Your task to perform on an android device: Search for vegetarian restaurants on Maps Image 0: 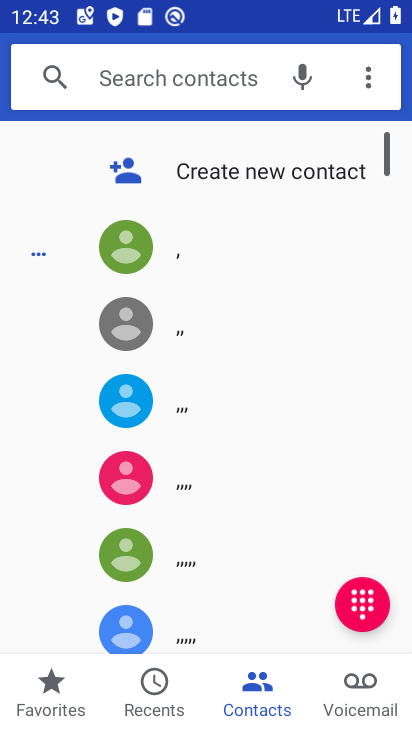
Step 0: press home button
Your task to perform on an android device: Search for vegetarian restaurants on Maps Image 1: 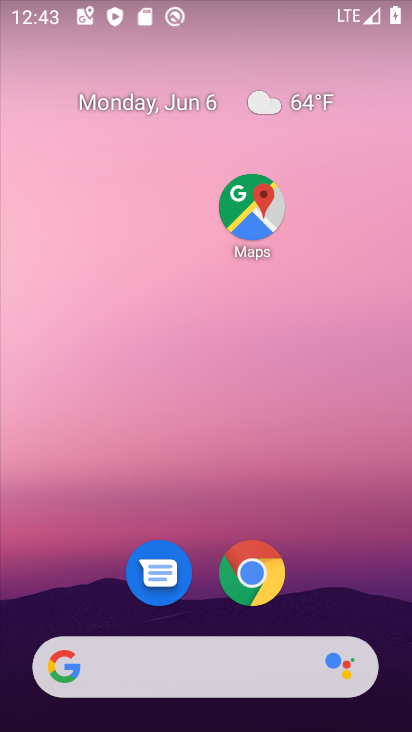
Step 1: drag from (185, 390) to (239, 11)
Your task to perform on an android device: Search for vegetarian restaurants on Maps Image 2: 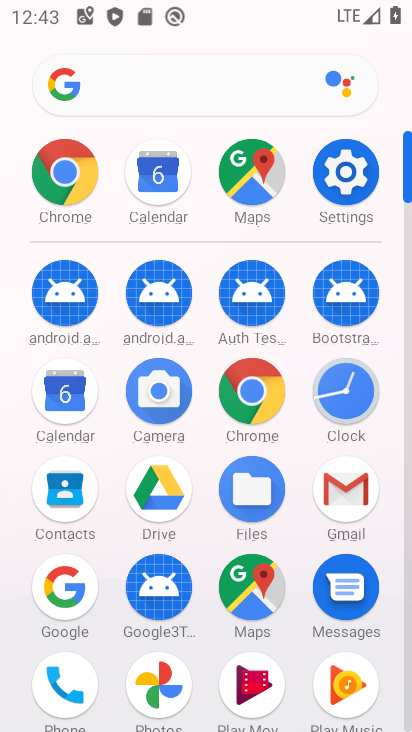
Step 2: drag from (201, 240) to (230, 29)
Your task to perform on an android device: Search for vegetarian restaurants on Maps Image 3: 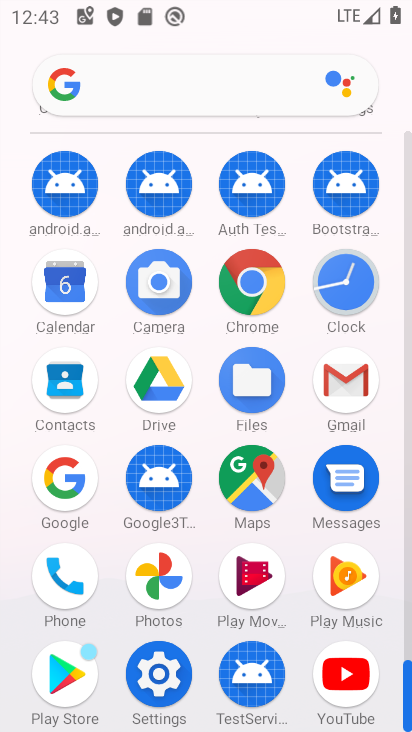
Step 3: click (258, 492)
Your task to perform on an android device: Search for vegetarian restaurants on Maps Image 4: 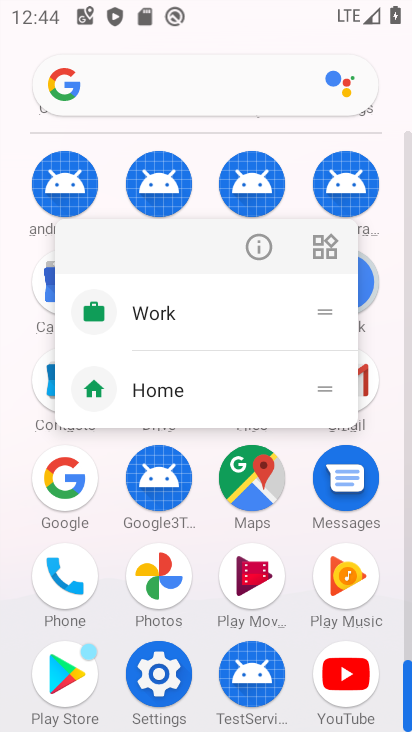
Step 4: click (256, 494)
Your task to perform on an android device: Search for vegetarian restaurants on Maps Image 5: 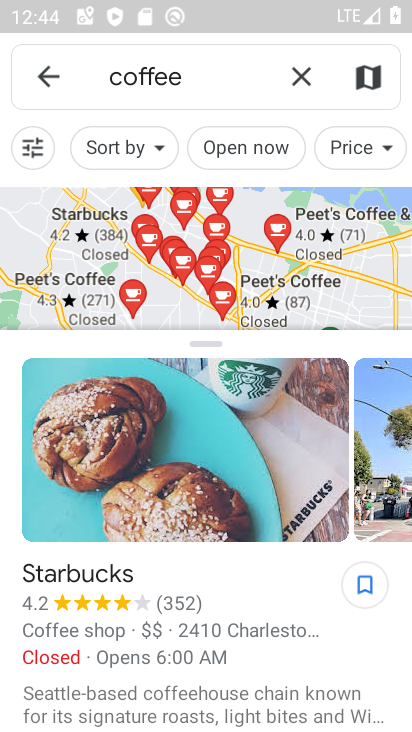
Step 5: click (300, 82)
Your task to perform on an android device: Search for vegetarian restaurants on Maps Image 6: 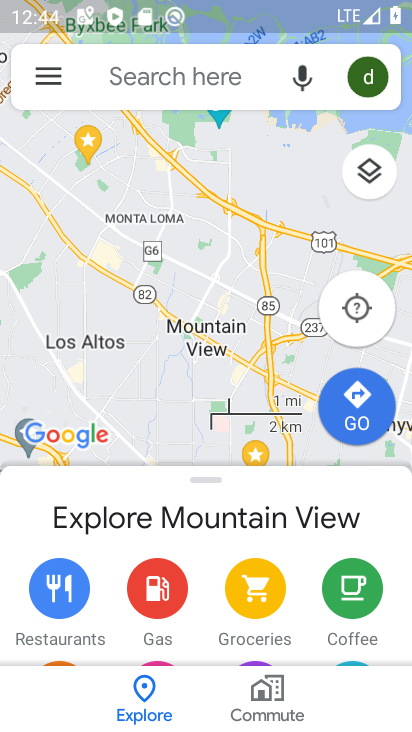
Step 6: click (185, 76)
Your task to perform on an android device: Search for vegetarian restaurants on Maps Image 7: 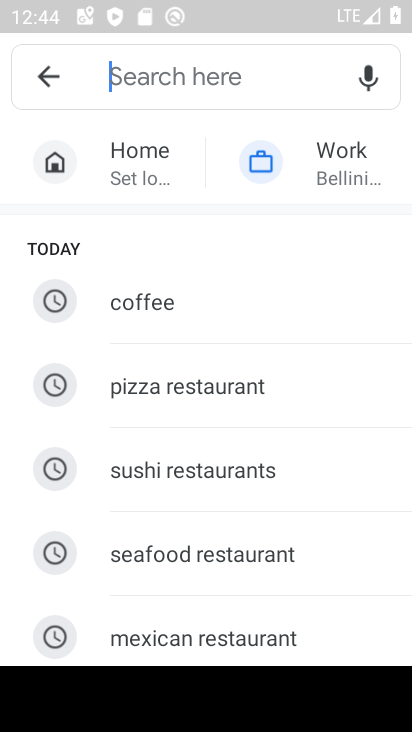
Step 7: drag from (207, 597) to (204, 129)
Your task to perform on an android device: Search for vegetarian restaurants on Maps Image 8: 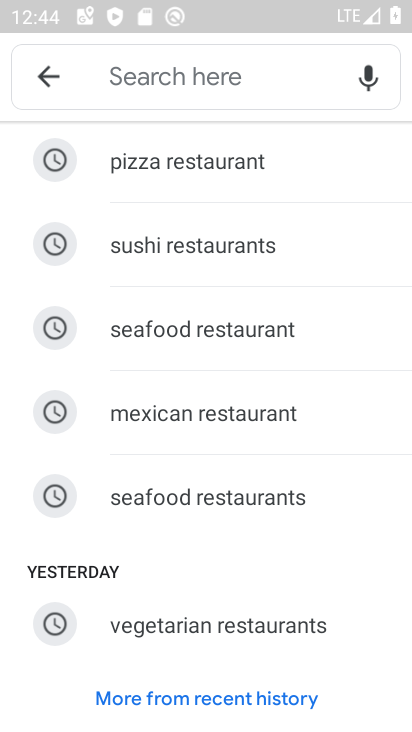
Step 8: click (205, 629)
Your task to perform on an android device: Search for vegetarian restaurants on Maps Image 9: 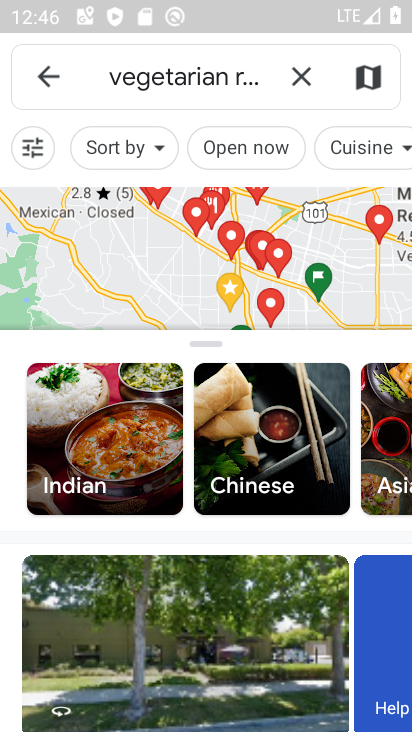
Step 9: task complete